Your task to perform on an android device: toggle improve location accuracy Image 0: 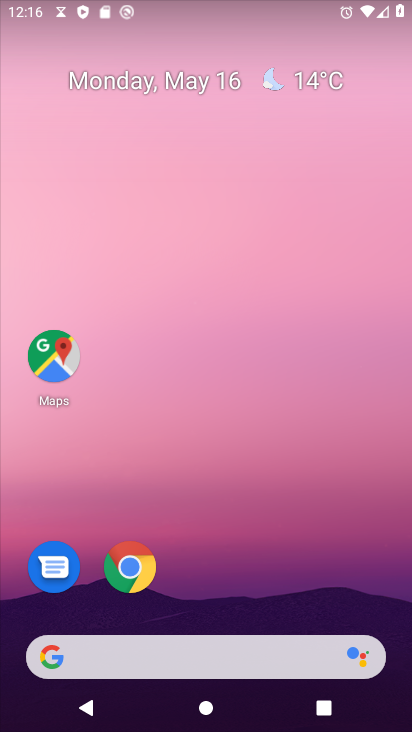
Step 0: drag from (214, 622) to (246, 58)
Your task to perform on an android device: toggle improve location accuracy Image 1: 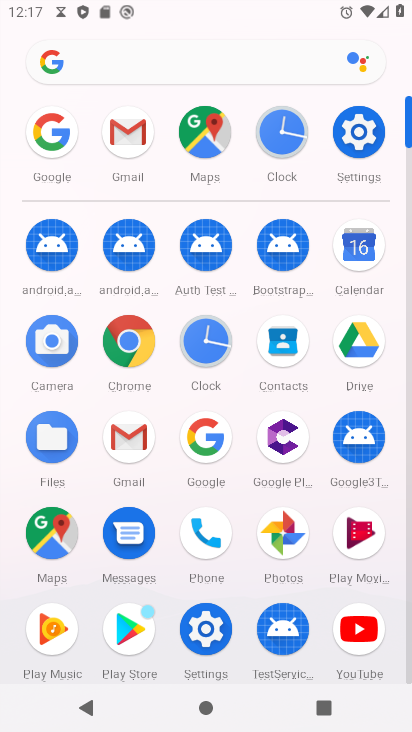
Step 1: click (205, 627)
Your task to perform on an android device: toggle improve location accuracy Image 2: 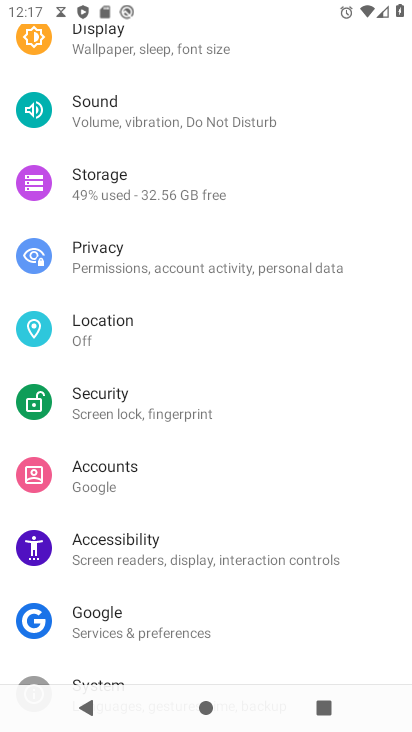
Step 2: click (131, 329)
Your task to perform on an android device: toggle improve location accuracy Image 3: 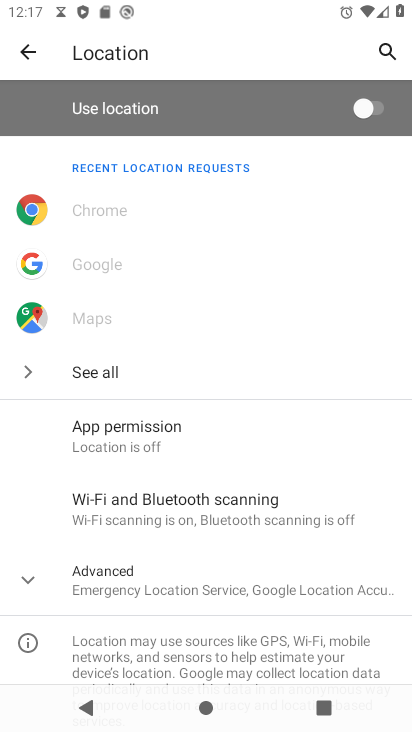
Step 3: click (176, 583)
Your task to perform on an android device: toggle improve location accuracy Image 4: 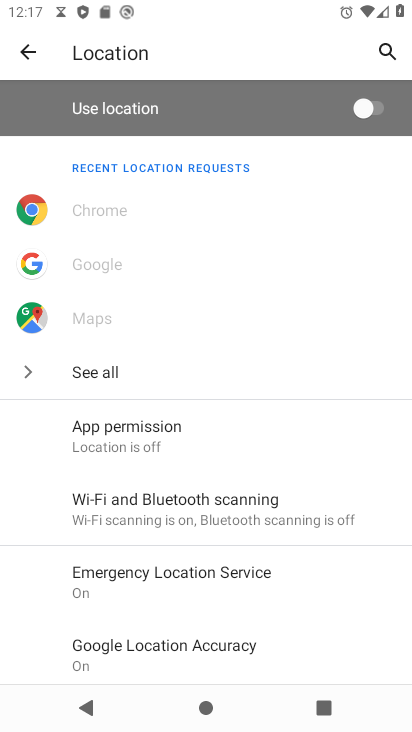
Step 4: drag from (185, 593) to (192, 454)
Your task to perform on an android device: toggle improve location accuracy Image 5: 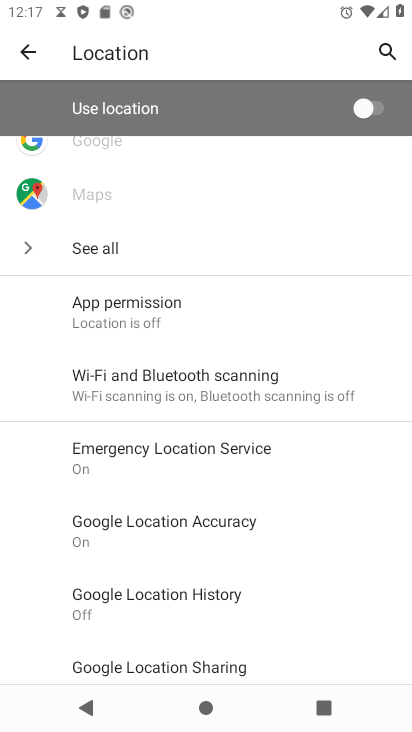
Step 5: click (210, 532)
Your task to perform on an android device: toggle improve location accuracy Image 6: 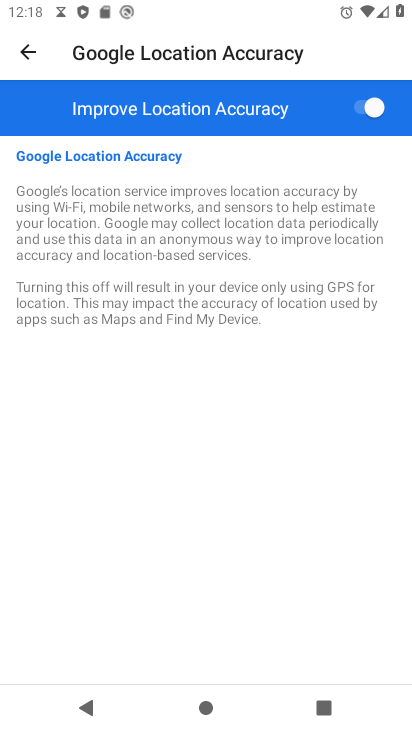
Step 6: click (380, 110)
Your task to perform on an android device: toggle improve location accuracy Image 7: 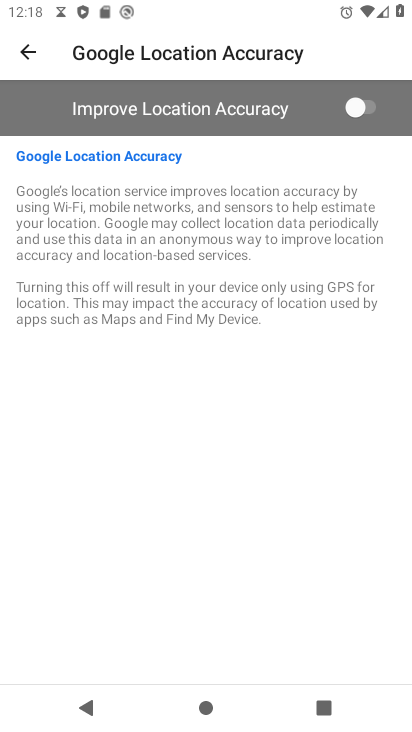
Step 7: task complete